Your task to perform on an android device: Open wifi settings Image 0: 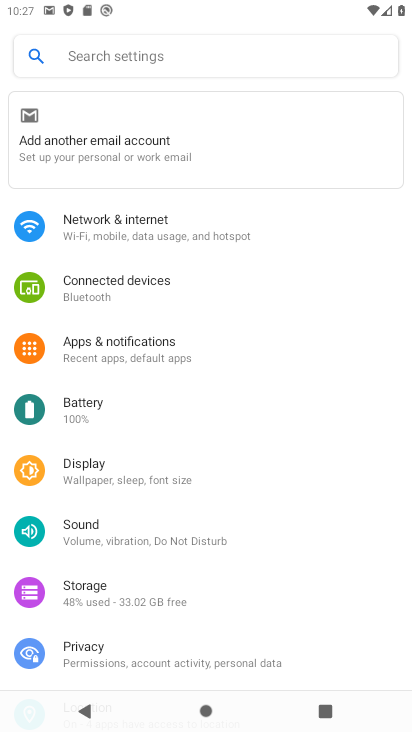
Step 0: click (102, 243)
Your task to perform on an android device: Open wifi settings Image 1: 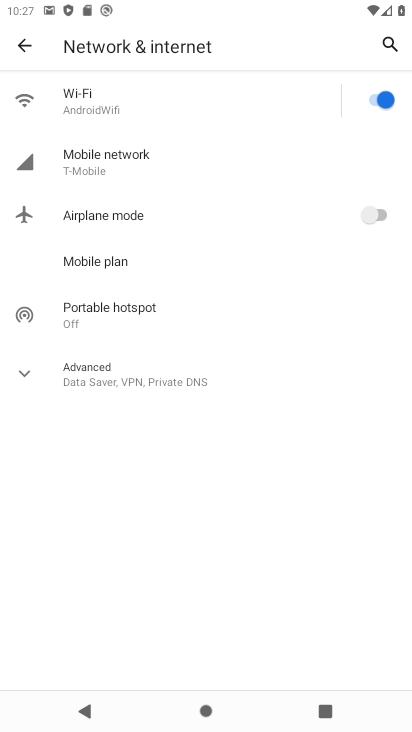
Step 1: click (129, 83)
Your task to perform on an android device: Open wifi settings Image 2: 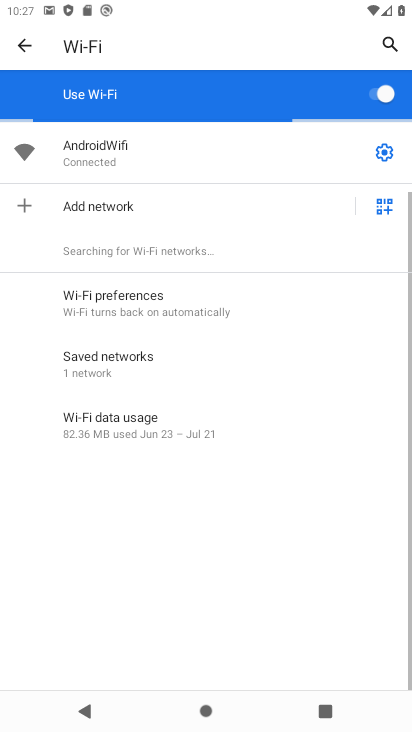
Step 2: click (375, 155)
Your task to perform on an android device: Open wifi settings Image 3: 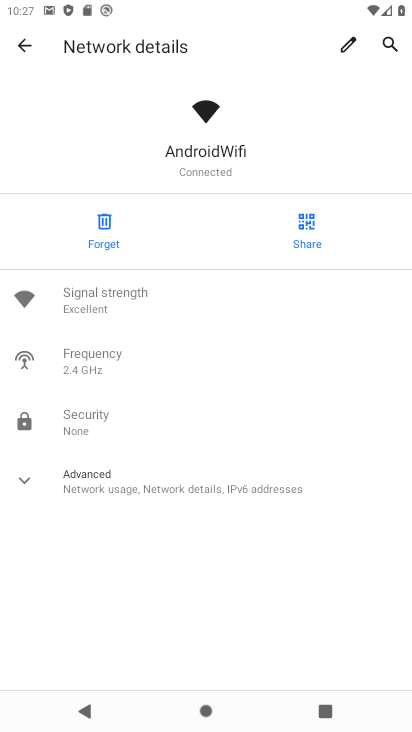
Step 3: task complete